Your task to perform on an android device: Turn off the flashlight Image 0: 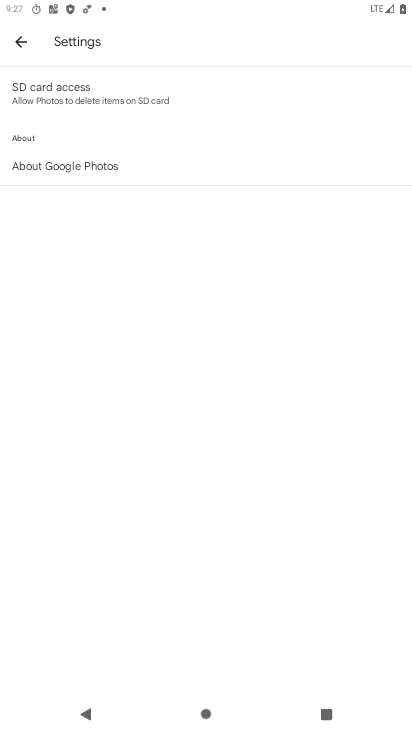
Step 0: press home button
Your task to perform on an android device: Turn off the flashlight Image 1: 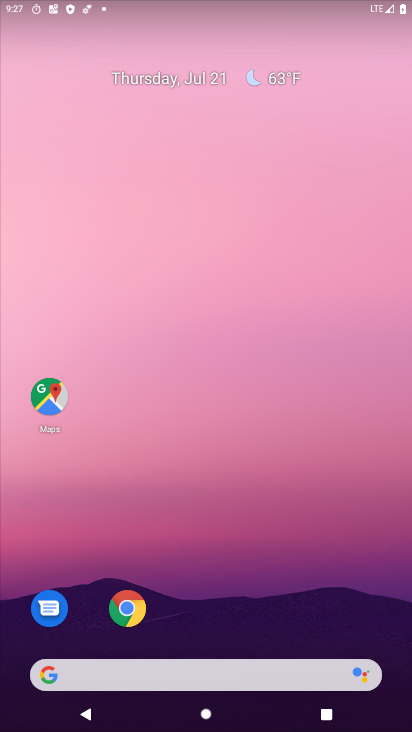
Step 1: task complete